Your task to perform on an android device: Open location settings Image 0: 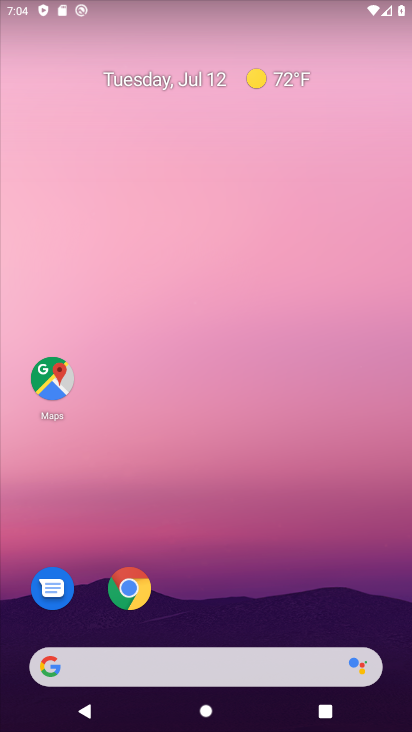
Step 0: drag from (333, 581) to (393, 140)
Your task to perform on an android device: Open location settings Image 1: 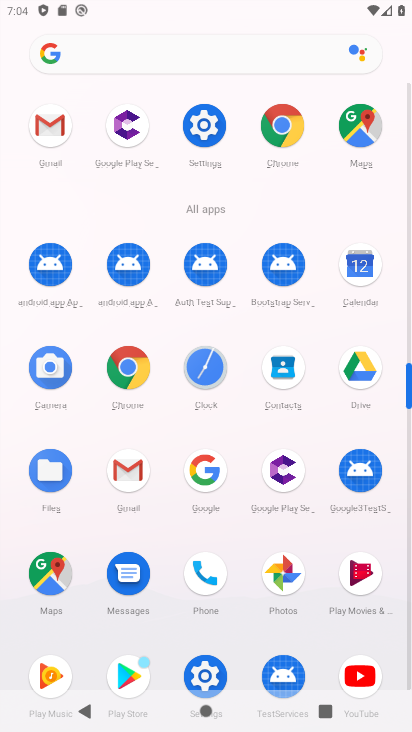
Step 1: click (199, 140)
Your task to perform on an android device: Open location settings Image 2: 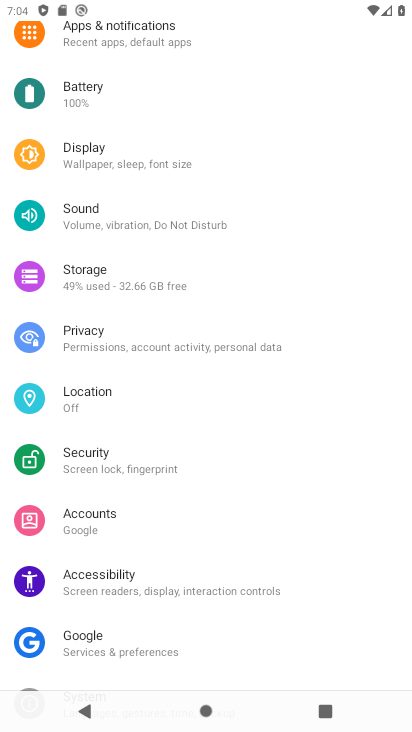
Step 2: click (79, 410)
Your task to perform on an android device: Open location settings Image 3: 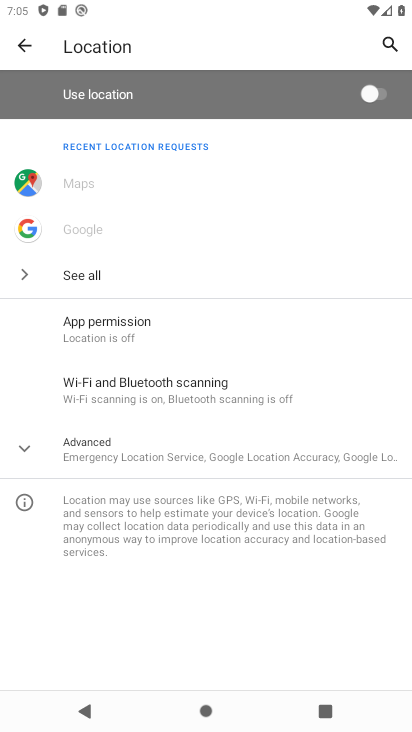
Step 3: task complete